Your task to perform on an android device: Go to network settings Image 0: 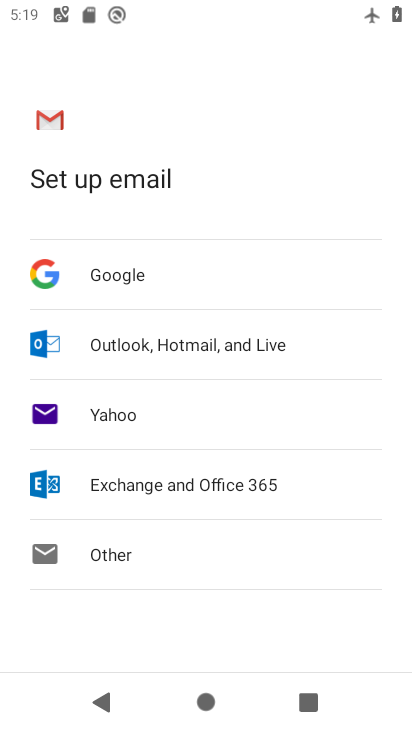
Step 0: press home button
Your task to perform on an android device: Go to network settings Image 1: 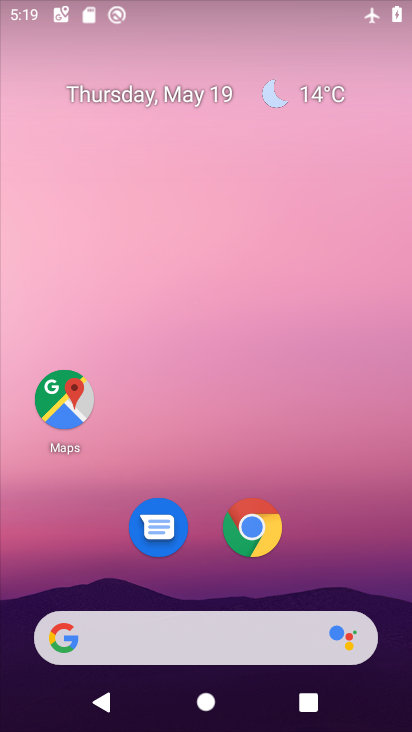
Step 1: drag from (348, 536) to (242, 68)
Your task to perform on an android device: Go to network settings Image 2: 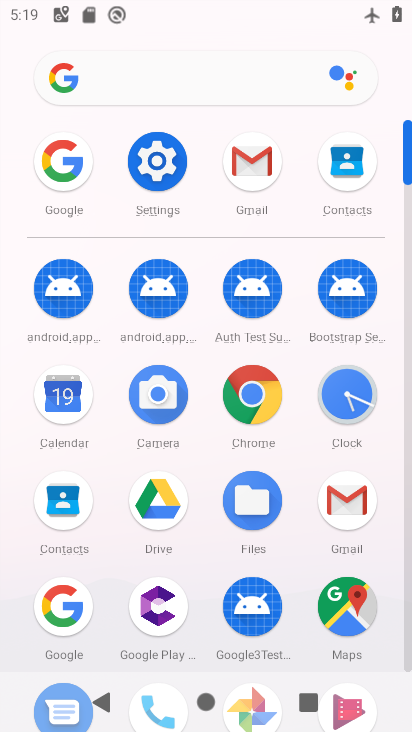
Step 2: click (170, 146)
Your task to perform on an android device: Go to network settings Image 3: 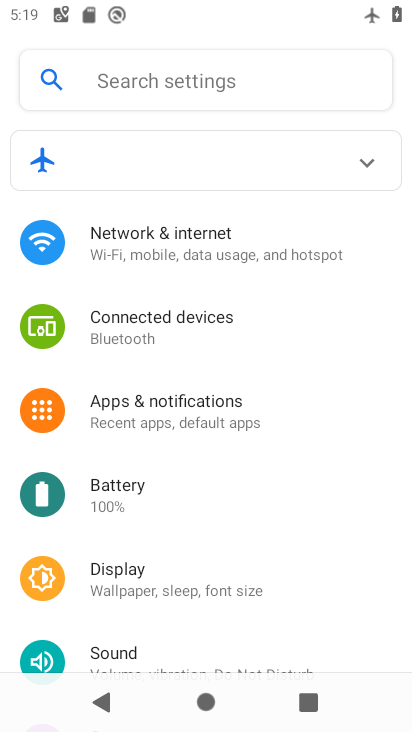
Step 3: click (227, 250)
Your task to perform on an android device: Go to network settings Image 4: 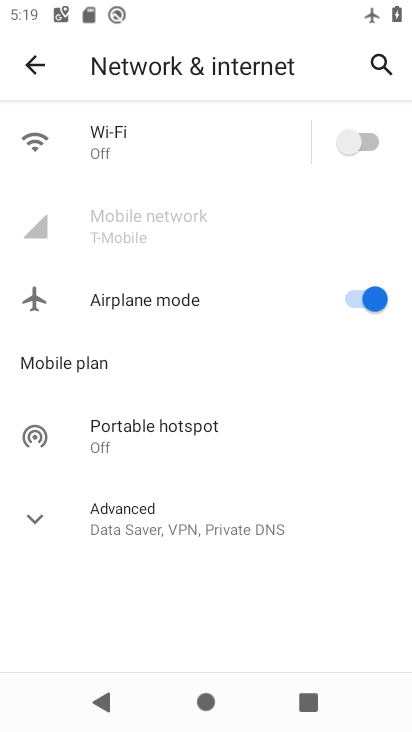
Step 4: task complete